Your task to perform on an android device: Open Youtube and go to the subscriptions tab Image 0: 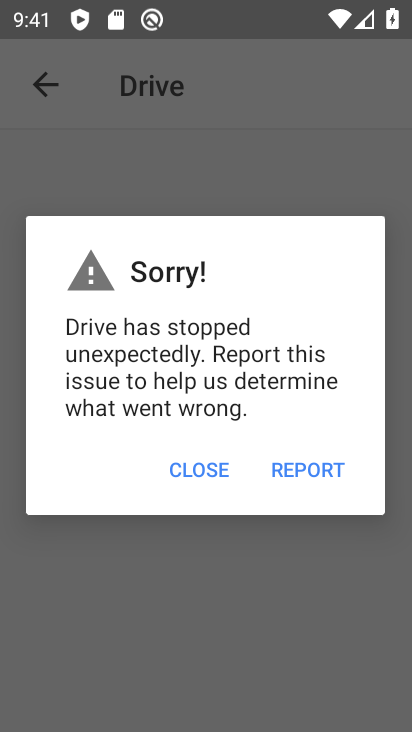
Step 0: press home button
Your task to perform on an android device: Open Youtube and go to the subscriptions tab Image 1: 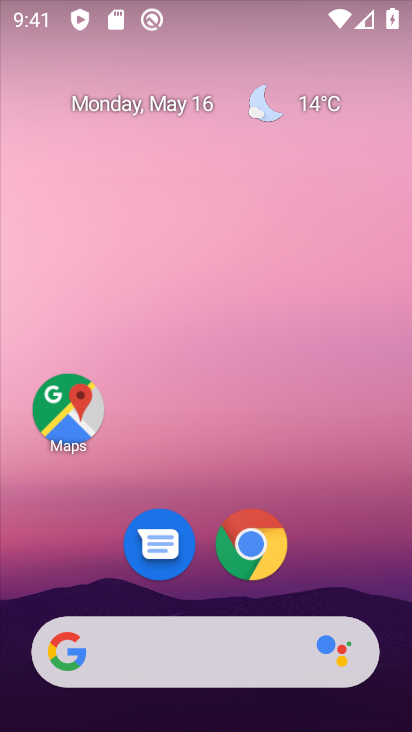
Step 1: drag from (318, 568) to (320, 140)
Your task to perform on an android device: Open Youtube and go to the subscriptions tab Image 2: 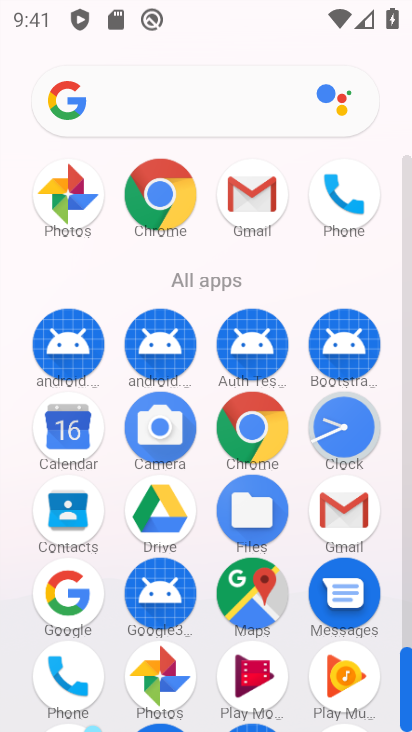
Step 2: drag from (308, 663) to (358, 277)
Your task to perform on an android device: Open Youtube and go to the subscriptions tab Image 3: 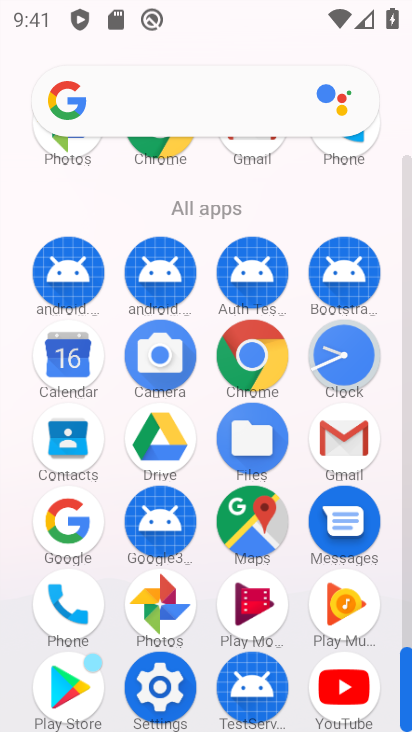
Step 3: click (349, 700)
Your task to perform on an android device: Open Youtube and go to the subscriptions tab Image 4: 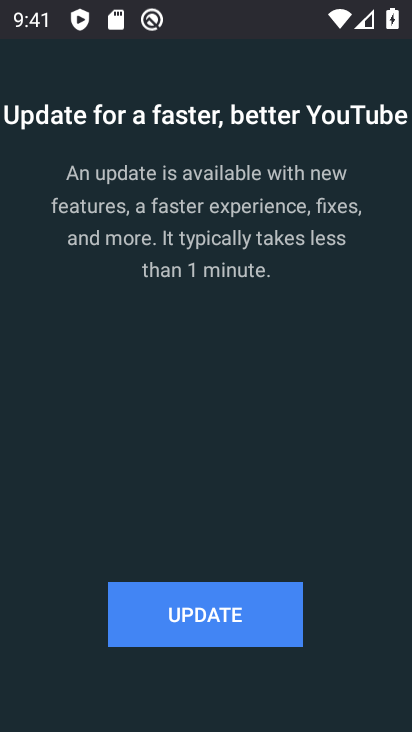
Step 4: click (240, 624)
Your task to perform on an android device: Open Youtube and go to the subscriptions tab Image 5: 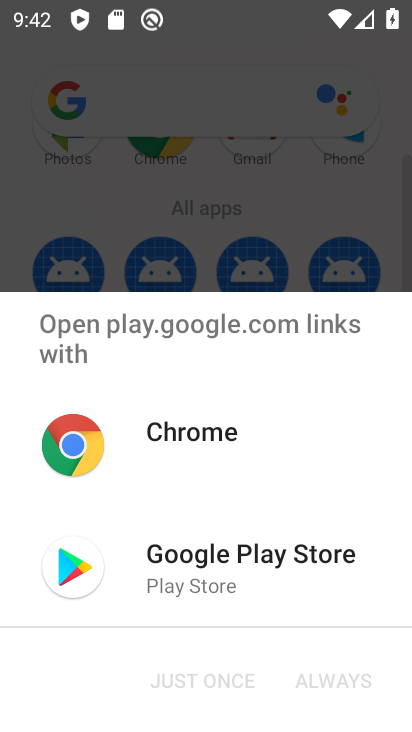
Step 5: click (230, 576)
Your task to perform on an android device: Open Youtube and go to the subscriptions tab Image 6: 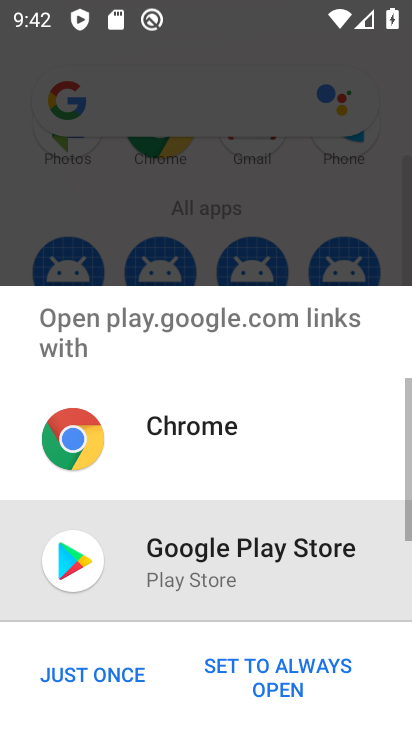
Step 6: click (111, 685)
Your task to perform on an android device: Open Youtube and go to the subscriptions tab Image 7: 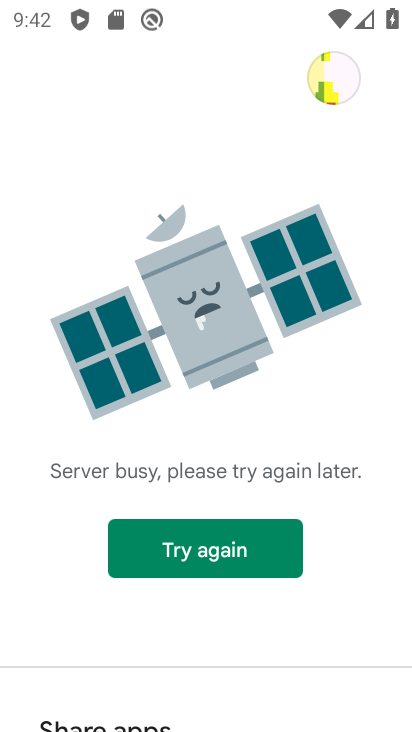
Step 7: click (282, 553)
Your task to perform on an android device: Open Youtube and go to the subscriptions tab Image 8: 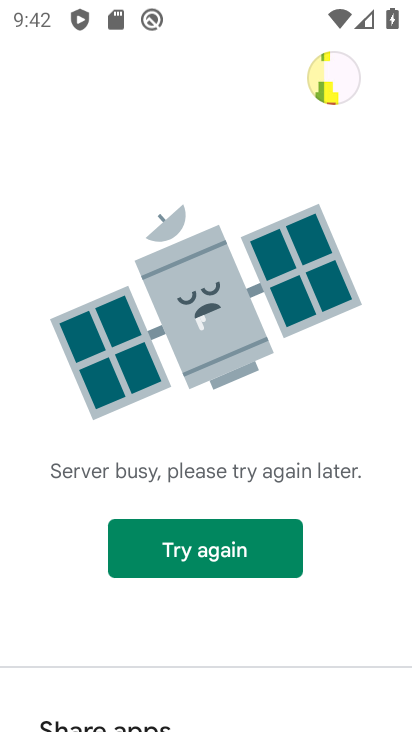
Step 8: task complete